Your task to perform on an android device: change the clock display to show seconds Image 0: 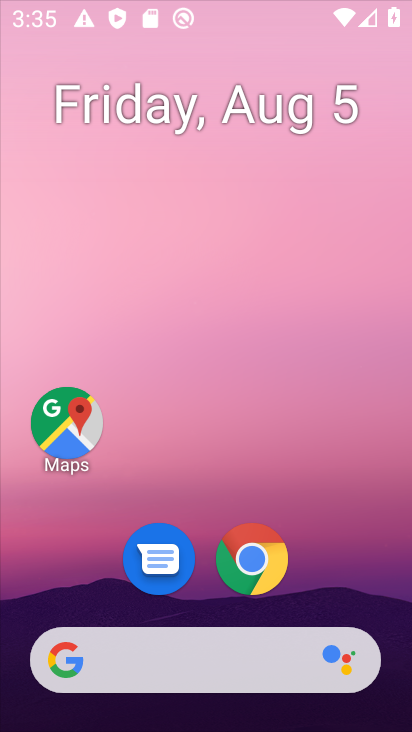
Step 0: drag from (241, 537) to (188, 318)
Your task to perform on an android device: change the clock display to show seconds Image 1: 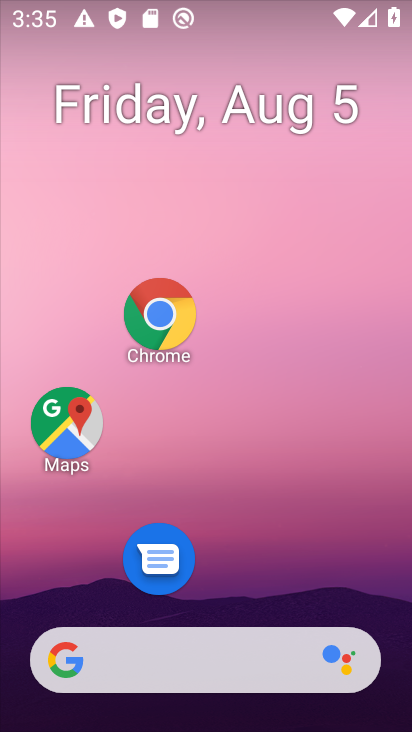
Step 1: click (184, 210)
Your task to perform on an android device: change the clock display to show seconds Image 2: 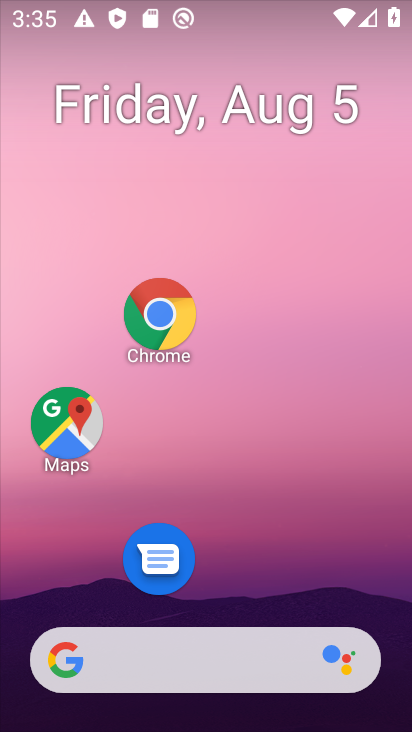
Step 2: drag from (247, 605) to (222, 259)
Your task to perform on an android device: change the clock display to show seconds Image 3: 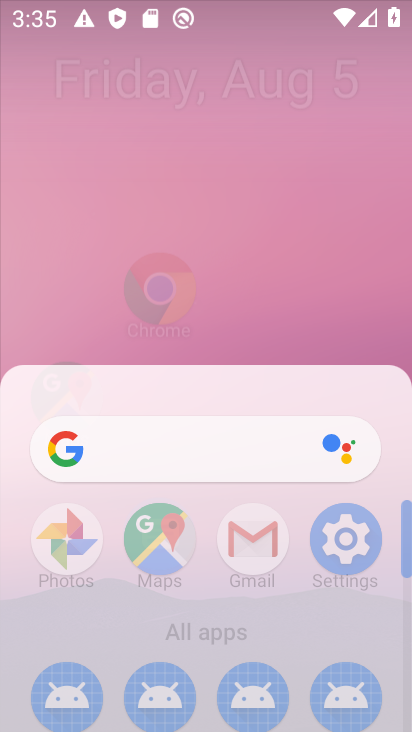
Step 3: drag from (227, 462) to (230, 183)
Your task to perform on an android device: change the clock display to show seconds Image 4: 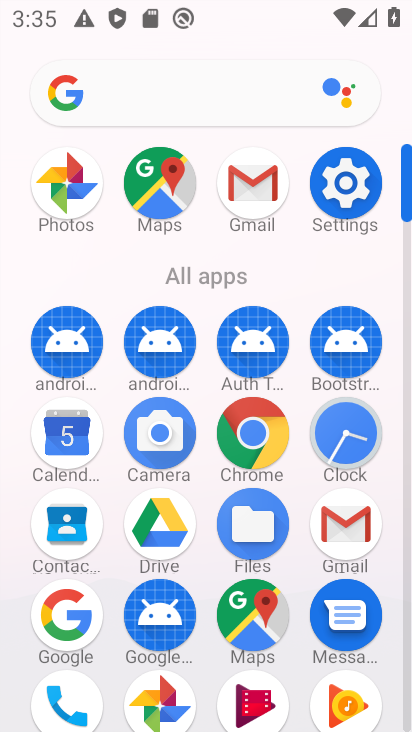
Step 4: click (330, 426)
Your task to perform on an android device: change the clock display to show seconds Image 5: 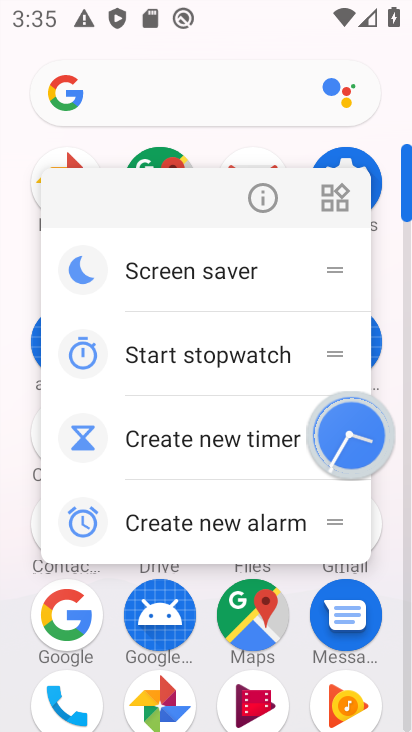
Step 5: click (336, 428)
Your task to perform on an android device: change the clock display to show seconds Image 6: 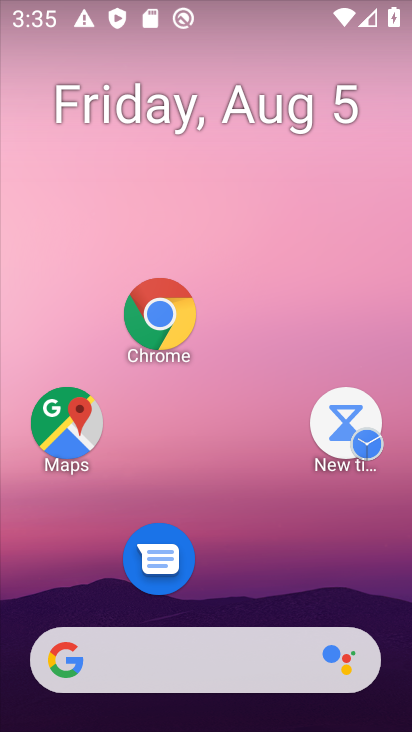
Step 6: click (365, 440)
Your task to perform on an android device: change the clock display to show seconds Image 7: 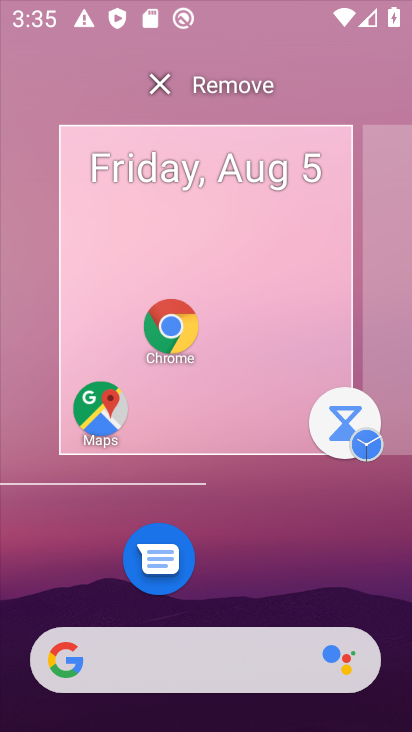
Step 7: click (367, 440)
Your task to perform on an android device: change the clock display to show seconds Image 8: 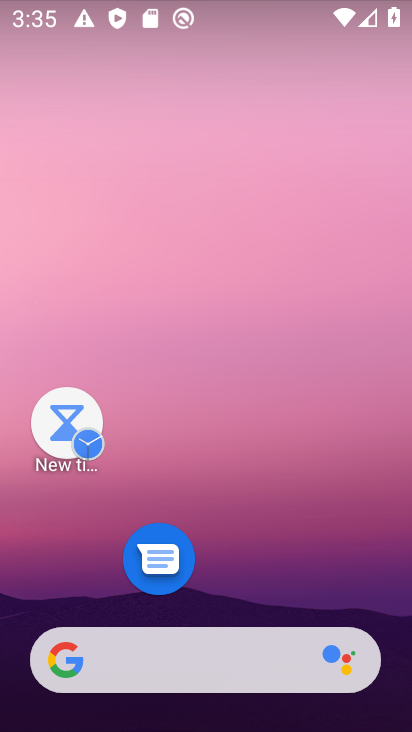
Step 8: drag from (239, 615) to (146, 209)
Your task to perform on an android device: change the clock display to show seconds Image 9: 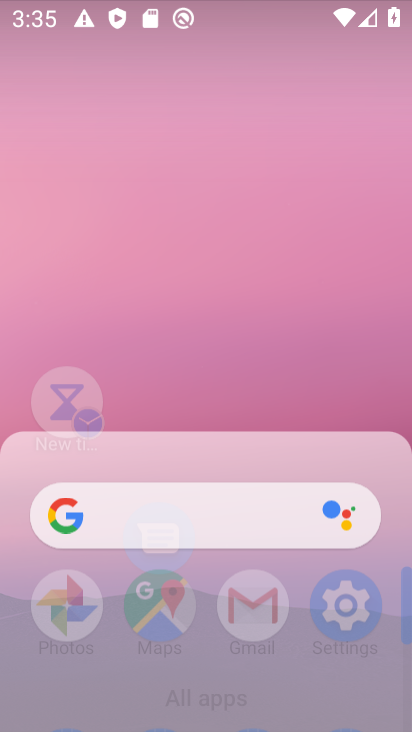
Step 9: drag from (180, 461) to (104, 160)
Your task to perform on an android device: change the clock display to show seconds Image 10: 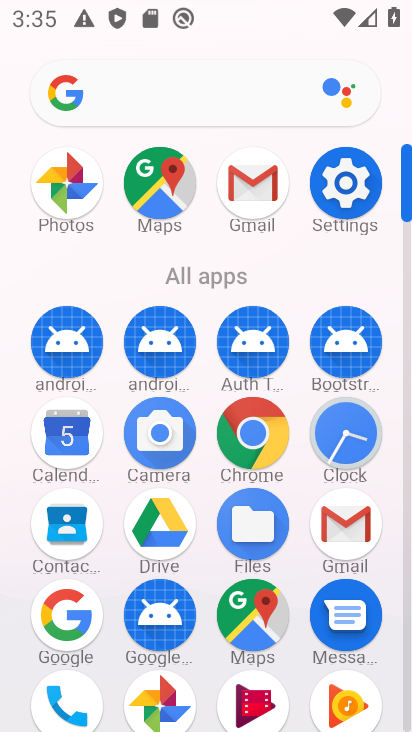
Step 10: drag from (178, 324) to (149, 118)
Your task to perform on an android device: change the clock display to show seconds Image 11: 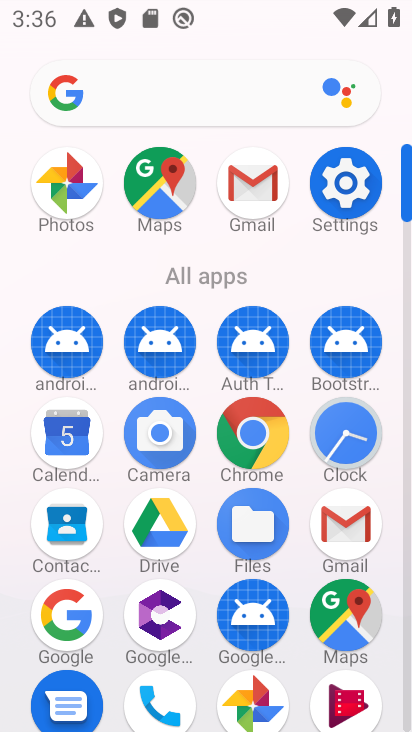
Step 11: click (346, 432)
Your task to perform on an android device: change the clock display to show seconds Image 12: 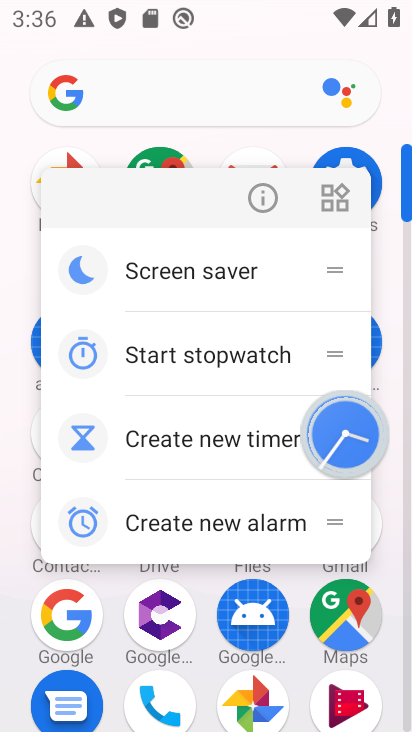
Step 12: click (346, 433)
Your task to perform on an android device: change the clock display to show seconds Image 13: 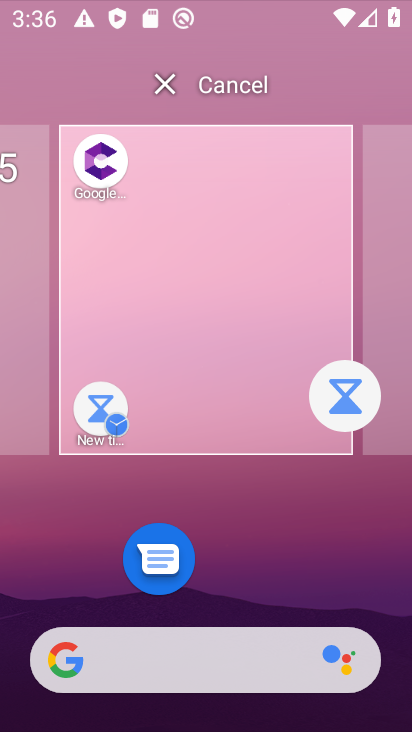
Step 13: click (346, 433)
Your task to perform on an android device: change the clock display to show seconds Image 14: 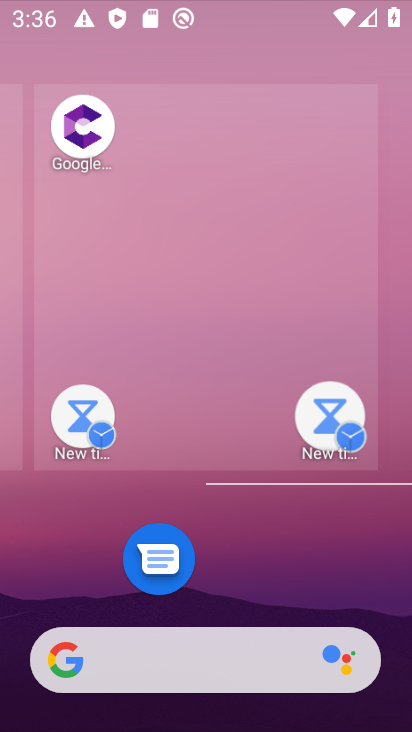
Step 14: drag from (194, 550) to (166, 283)
Your task to perform on an android device: change the clock display to show seconds Image 15: 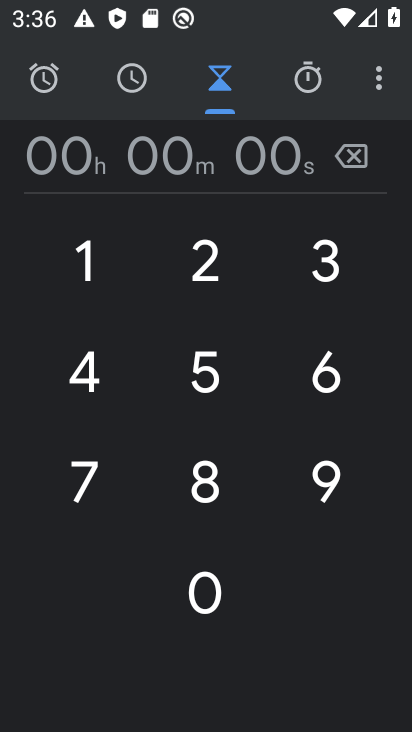
Step 15: click (371, 74)
Your task to perform on an android device: change the clock display to show seconds Image 16: 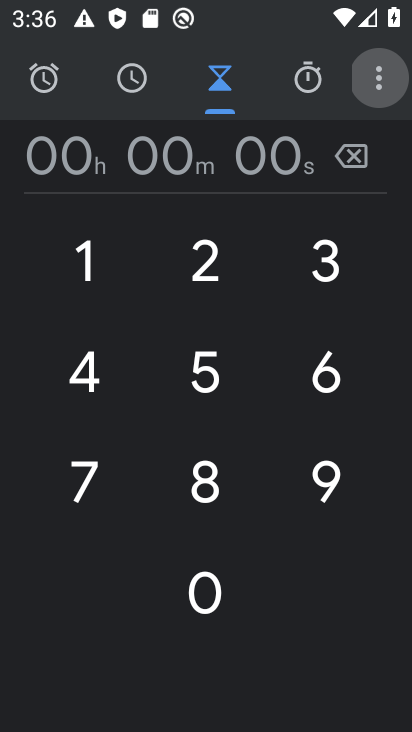
Step 16: click (385, 84)
Your task to perform on an android device: change the clock display to show seconds Image 17: 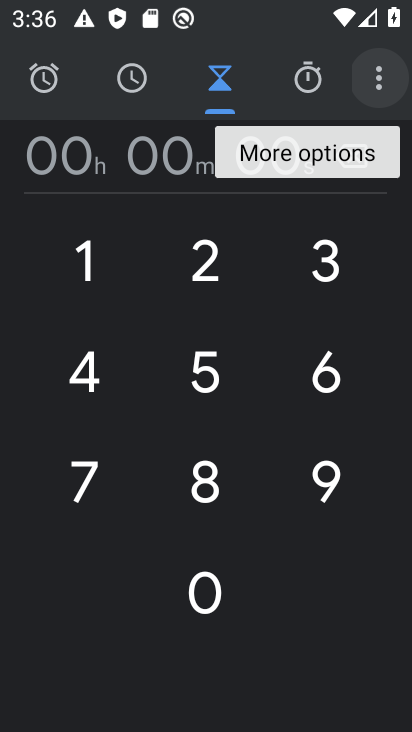
Step 17: click (385, 85)
Your task to perform on an android device: change the clock display to show seconds Image 18: 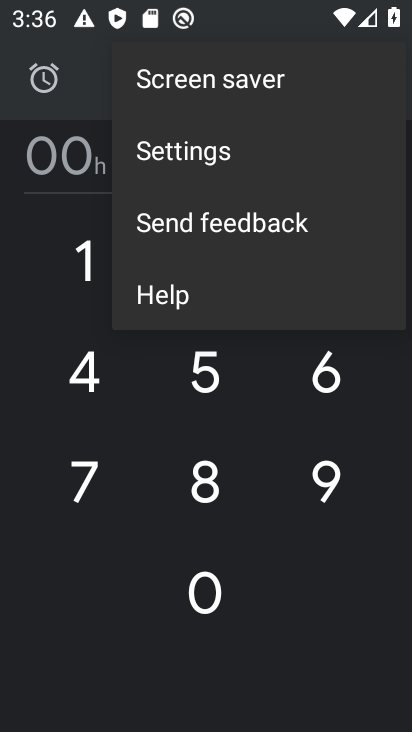
Step 18: click (163, 153)
Your task to perform on an android device: change the clock display to show seconds Image 19: 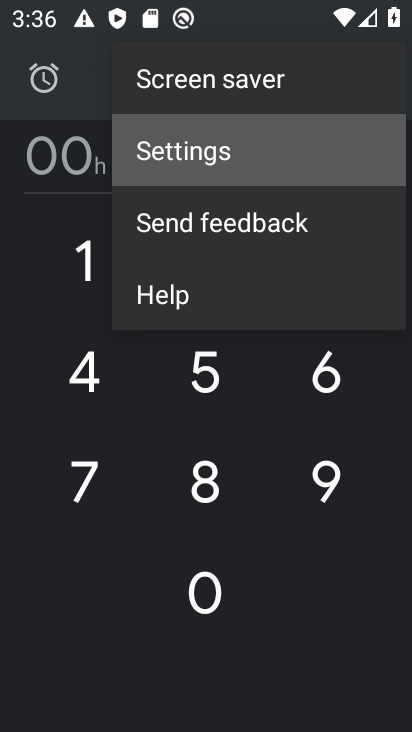
Step 19: click (164, 152)
Your task to perform on an android device: change the clock display to show seconds Image 20: 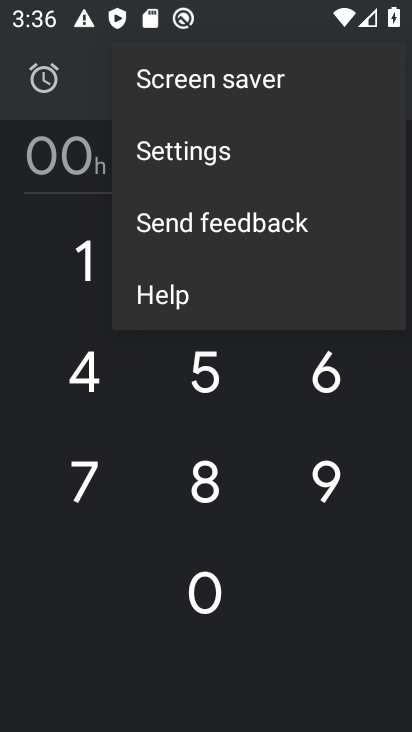
Step 20: click (181, 168)
Your task to perform on an android device: change the clock display to show seconds Image 21: 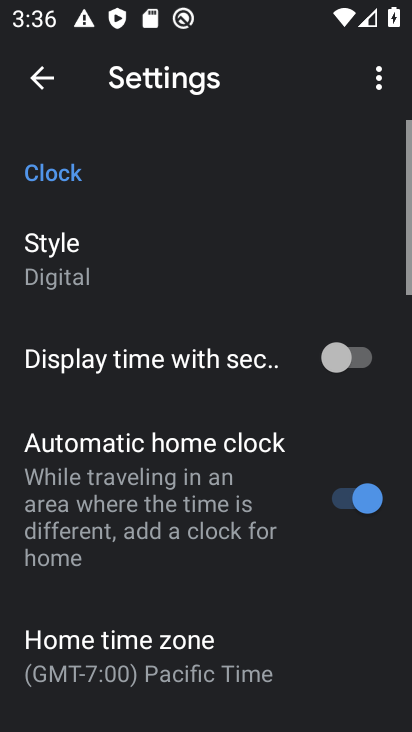
Step 21: click (184, 164)
Your task to perform on an android device: change the clock display to show seconds Image 22: 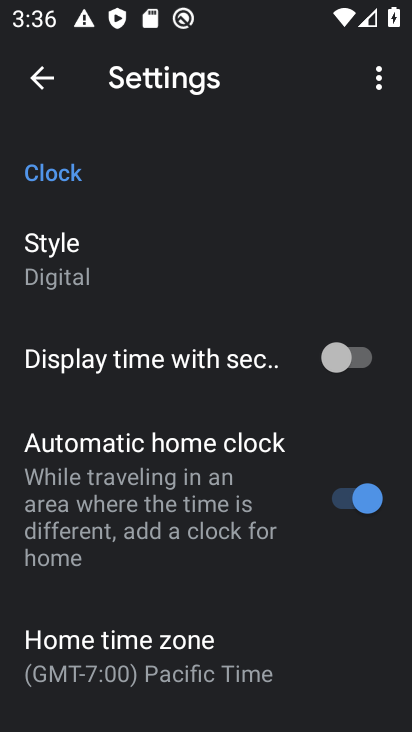
Step 22: click (343, 358)
Your task to perform on an android device: change the clock display to show seconds Image 23: 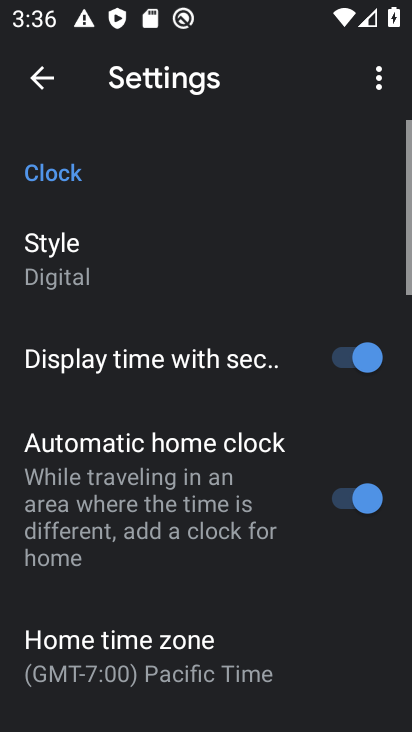
Step 23: task complete